Your task to perform on an android device: Open network settings Image 0: 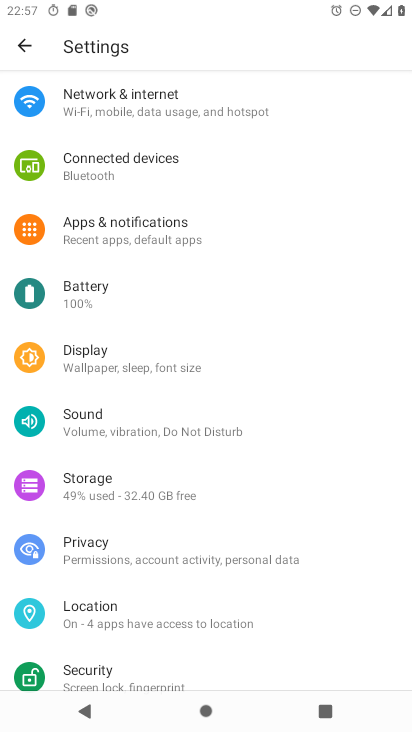
Step 0: click (115, 109)
Your task to perform on an android device: Open network settings Image 1: 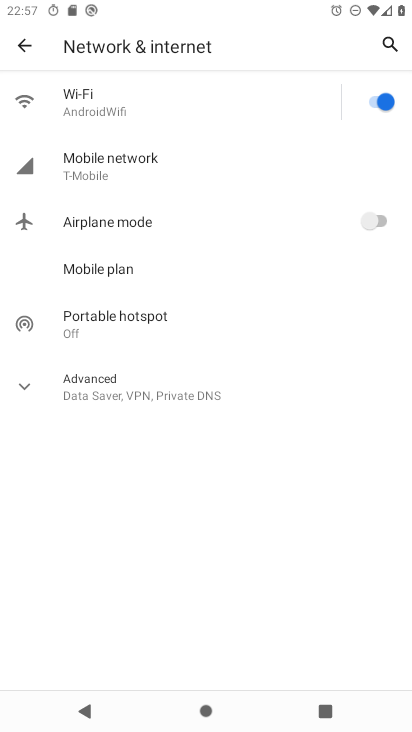
Step 1: task complete